Your task to perform on an android device: turn off sleep mode Image 0: 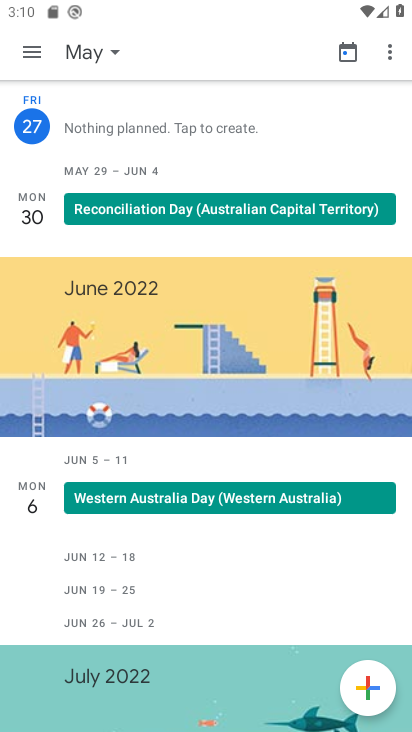
Step 0: press home button
Your task to perform on an android device: turn off sleep mode Image 1: 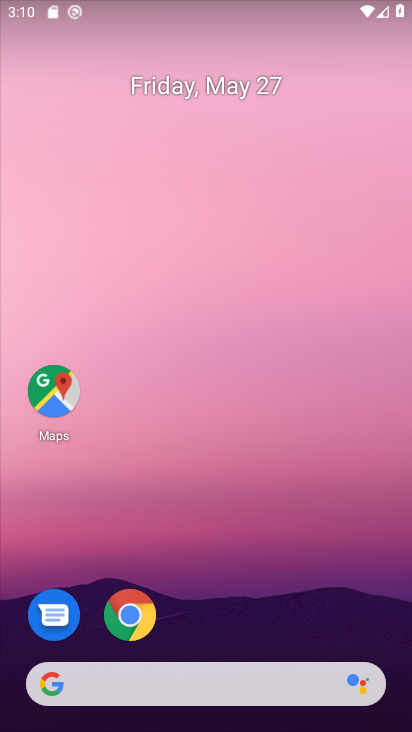
Step 1: drag from (261, 643) to (124, 284)
Your task to perform on an android device: turn off sleep mode Image 2: 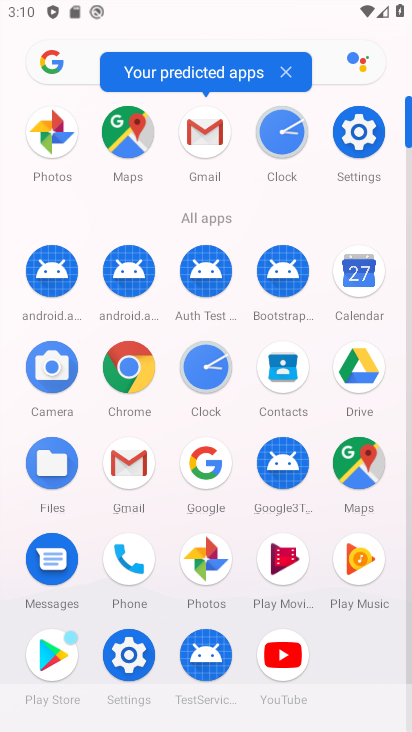
Step 2: click (357, 111)
Your task to perform on an android device: turn off sleep mode Image 3: 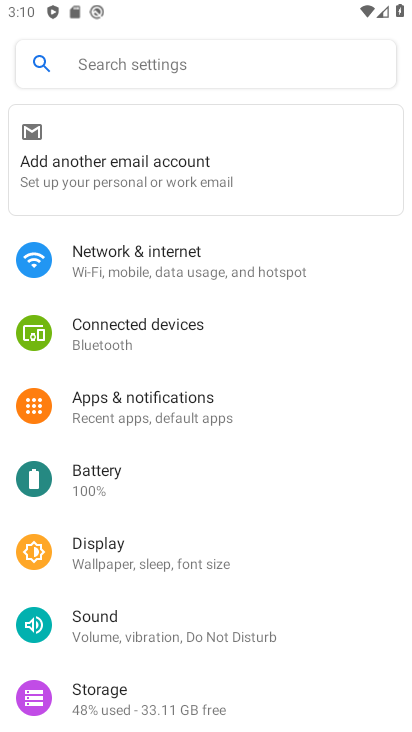
Step 3: click (151, 557)
Your task to perform on an android device: turn off sleep mode Image 4: 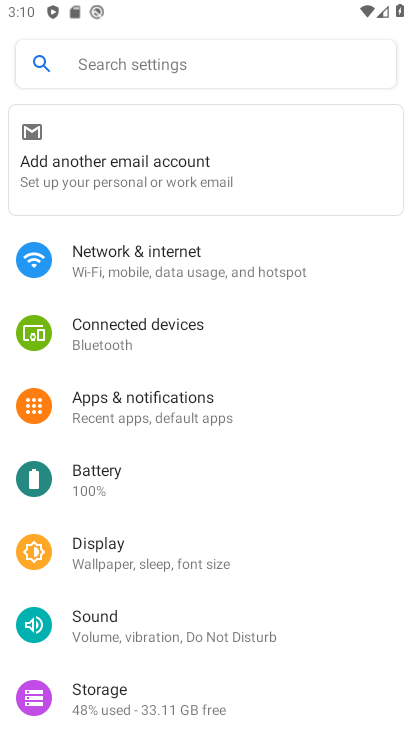
Step 4: click (151, 557)
Your task to perform on an android device: turn off sleep mode Image 5: 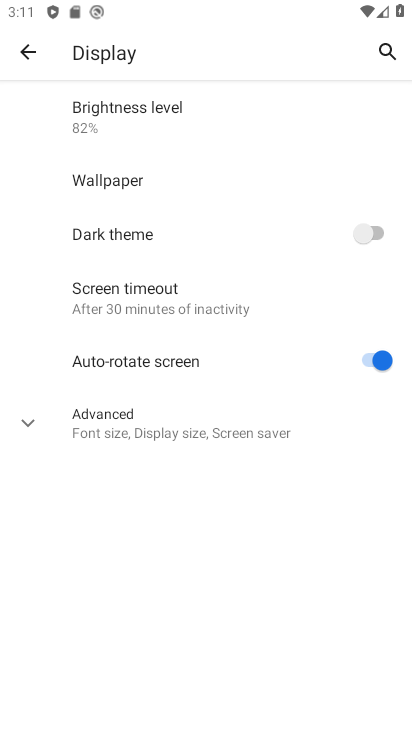
Step 5: task complete